Your task to perform on an android device: Open the settings Image 0: 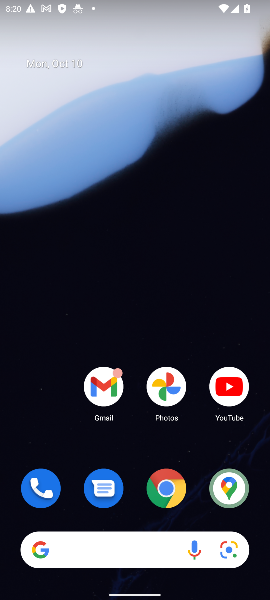
Step 0: drag from (141, 459) to (158, 1)
Your task to perform on an android device: Open the settings Image 1: 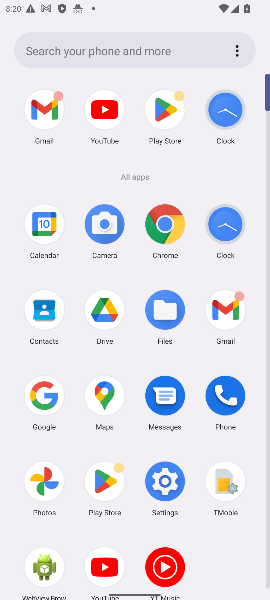
Step 1: click (155, 478)
Your task to perform on an android device: Open the settings Image 2: 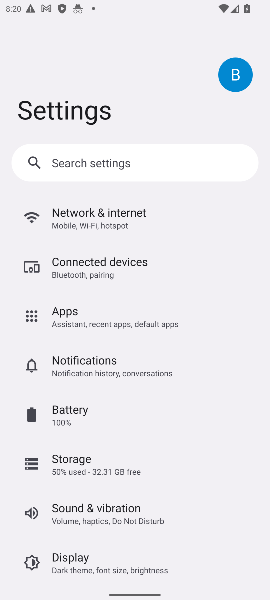
Step 2: task complete